Your task to perform on an android device: Empty the shopping cart on amazon. Image 0: 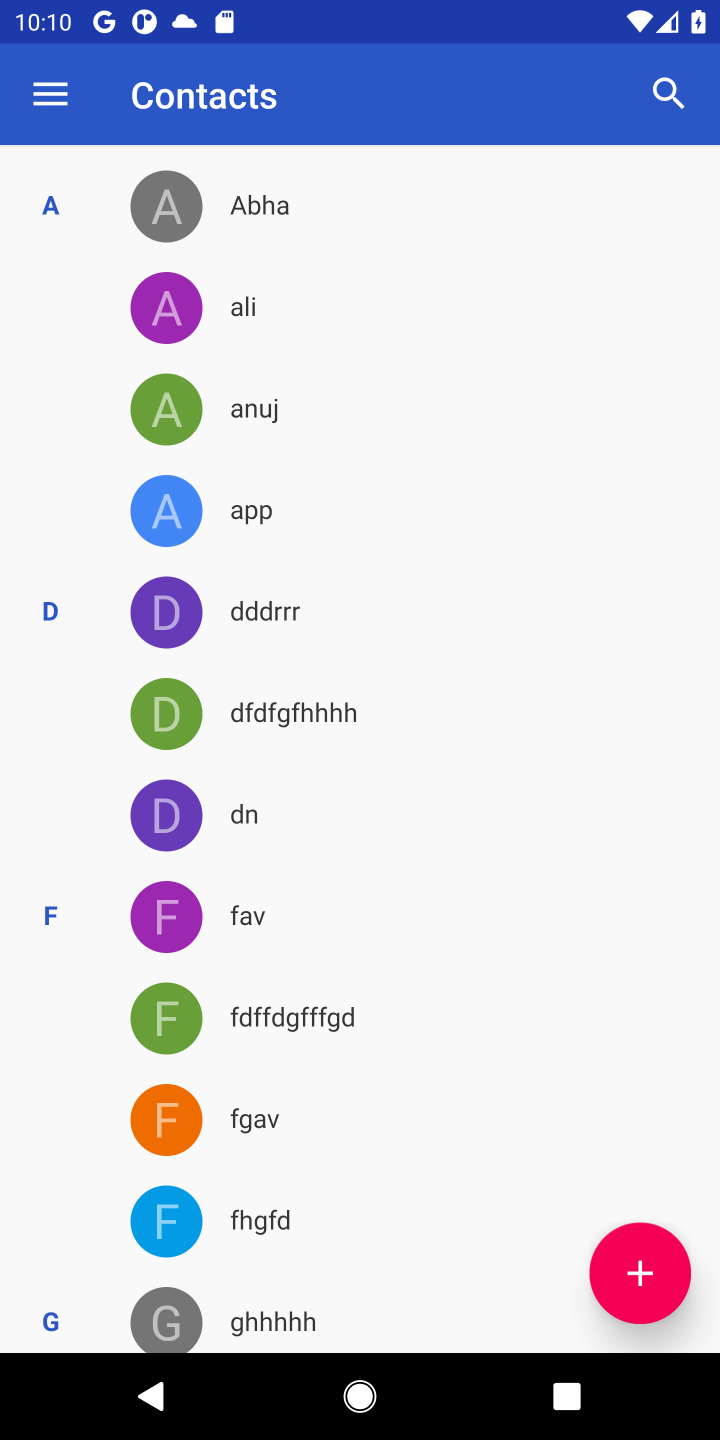
Step 0: press home button
Your task to perform on an android device: Empty the shopping cart on amazon. Image 1: 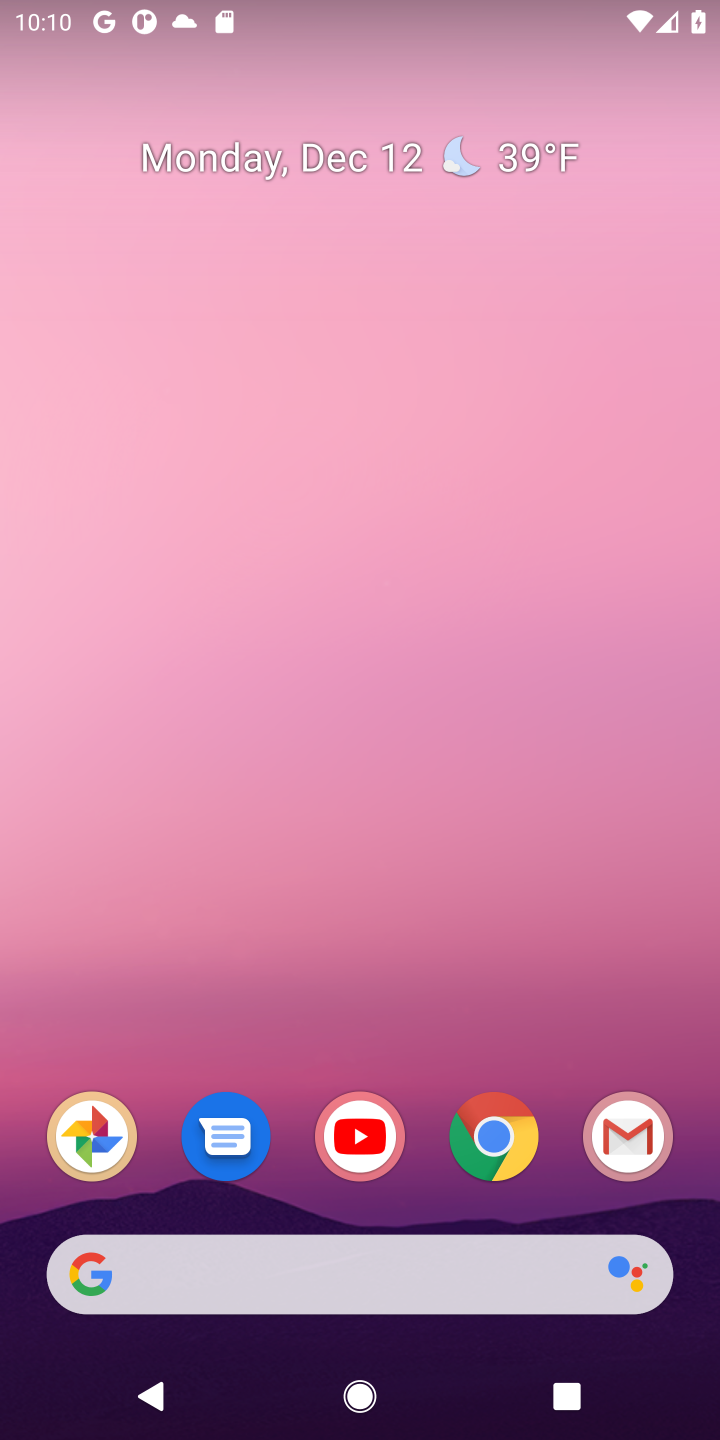
Step 1: click (491, 1150)
Your task to perform on an android device: Empty the shopping cart on amazon. Image 2: 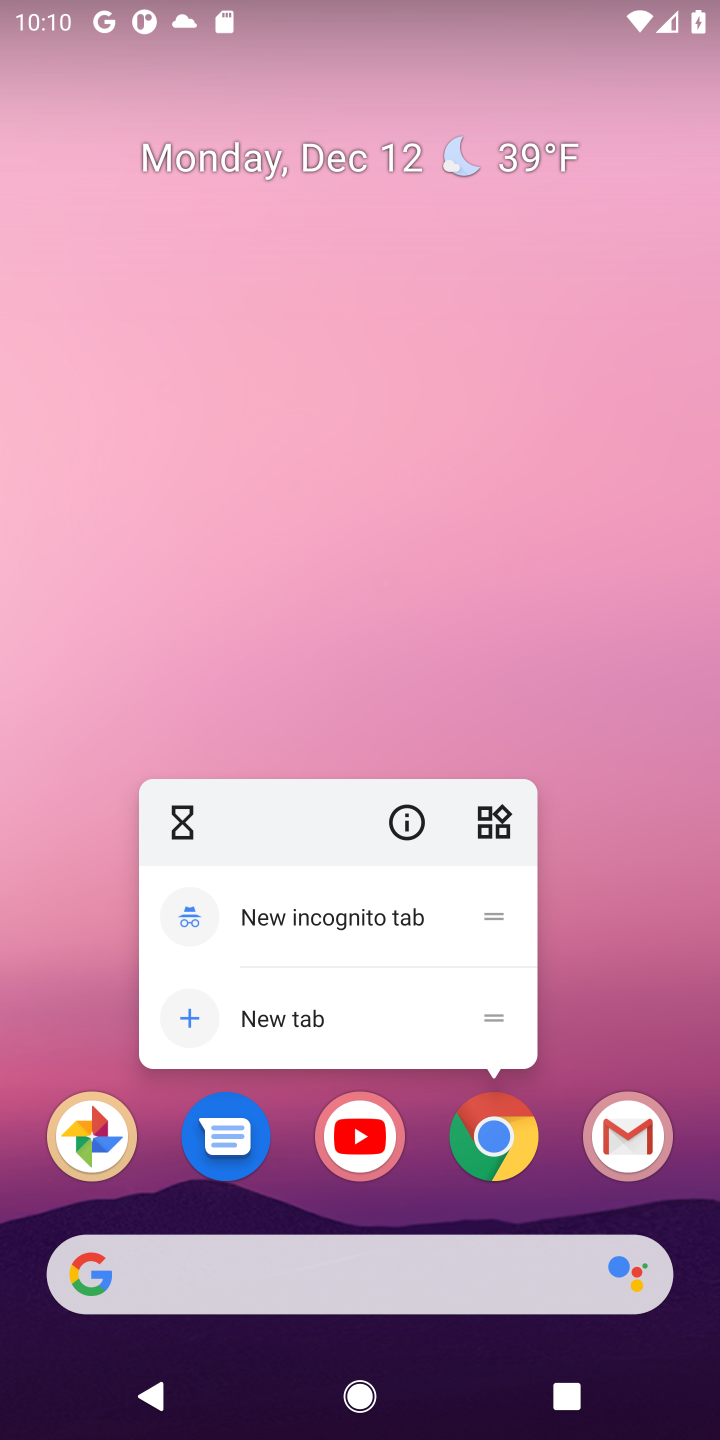
Step 2: click (494, 1141)
Your task to perform on an android device: Empty the shopping cart on amazon. Image 3: 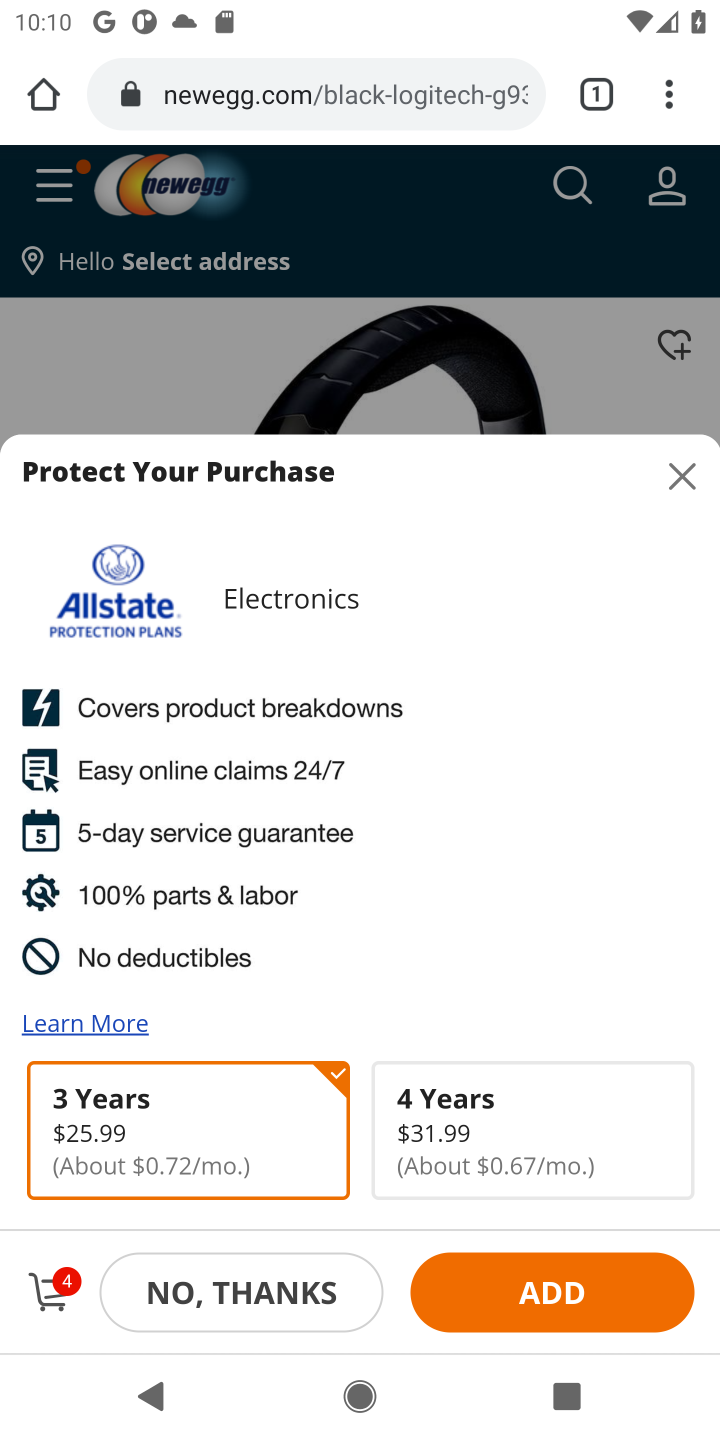
Step 3: click (293, 97)
Your task to perform on an android device: Empty the shopping cart on amazon. Image 4: 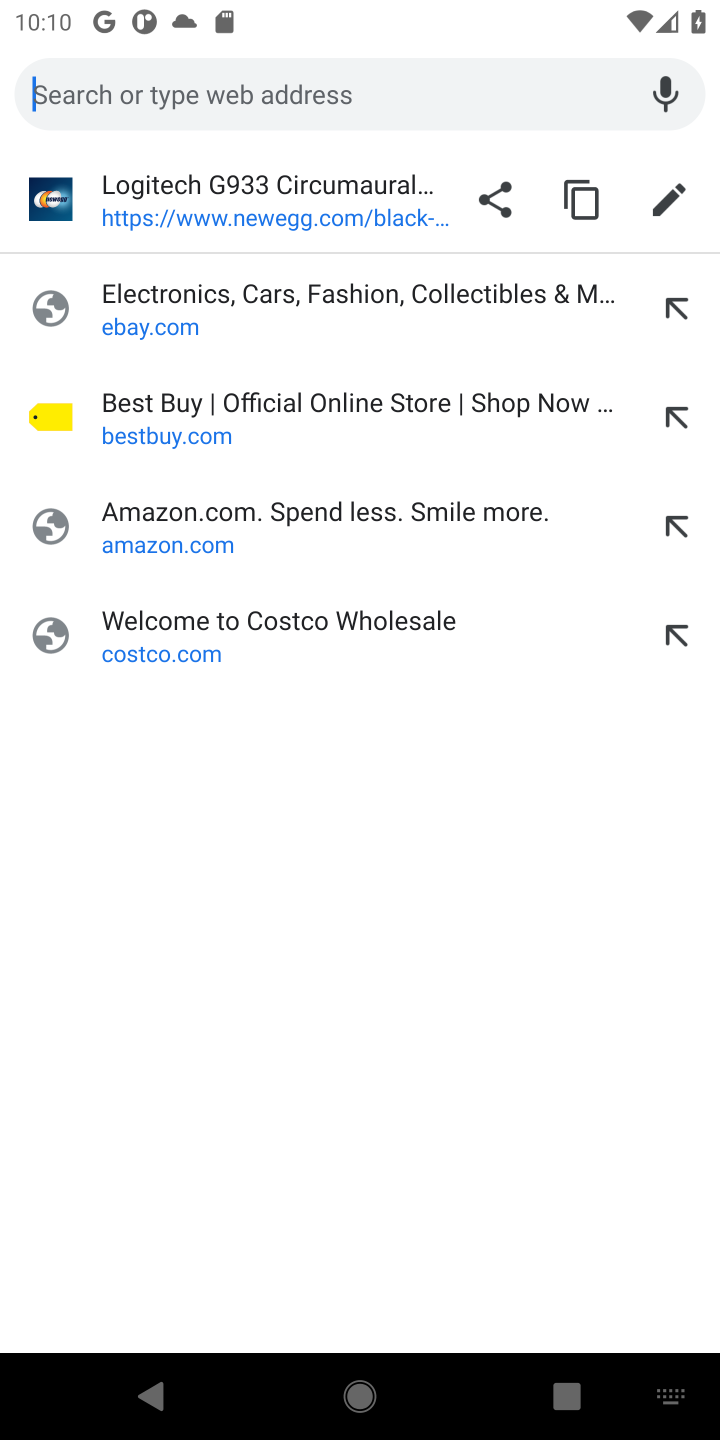
Step 4: click (135, 518)
Your task to perform on an android device: Empty the shopping cart on amazon. Image 5: 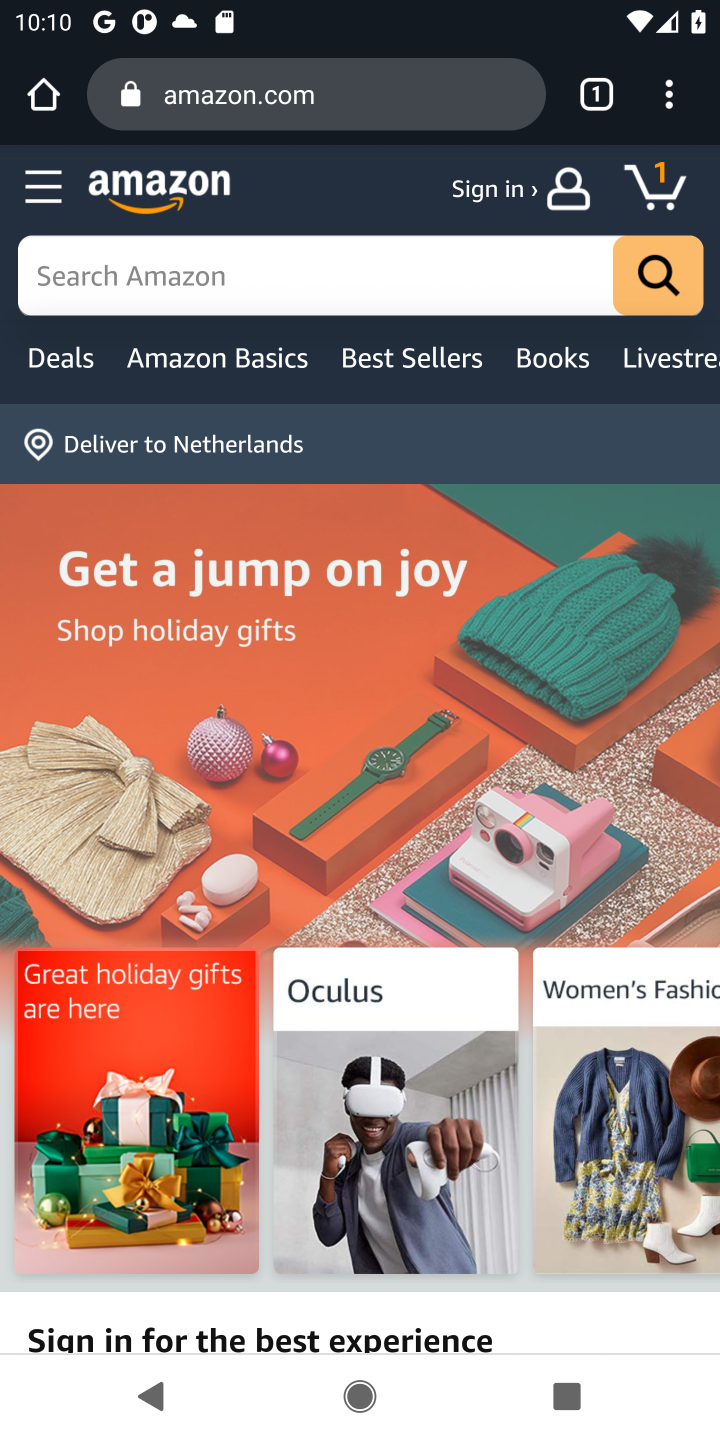
Step 5: click (657, 189)
Your task to perform on an android device: Empty the shopping cart on amazon. Image 6: 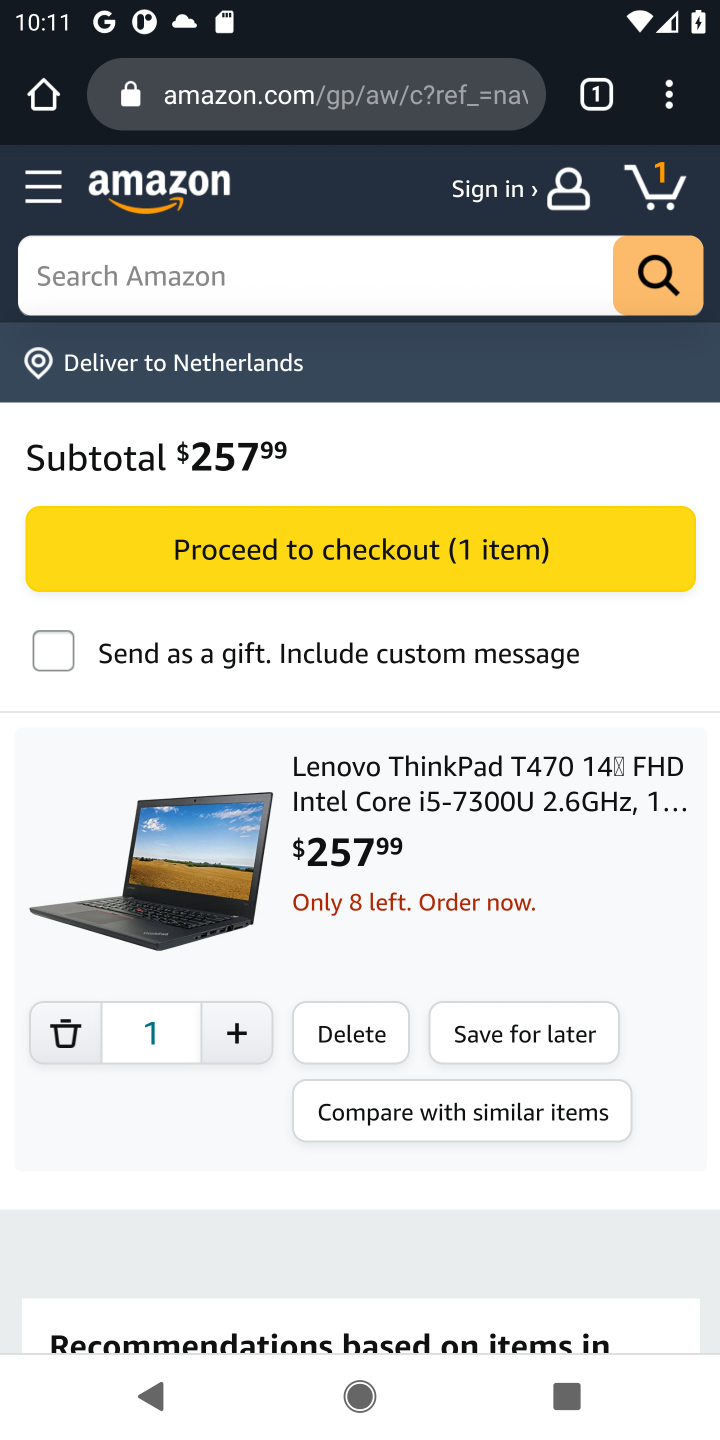
Step 6: click (354, 1032)
Your task to perform on an android device: Empty the shopping cart on amazon. Image 7: 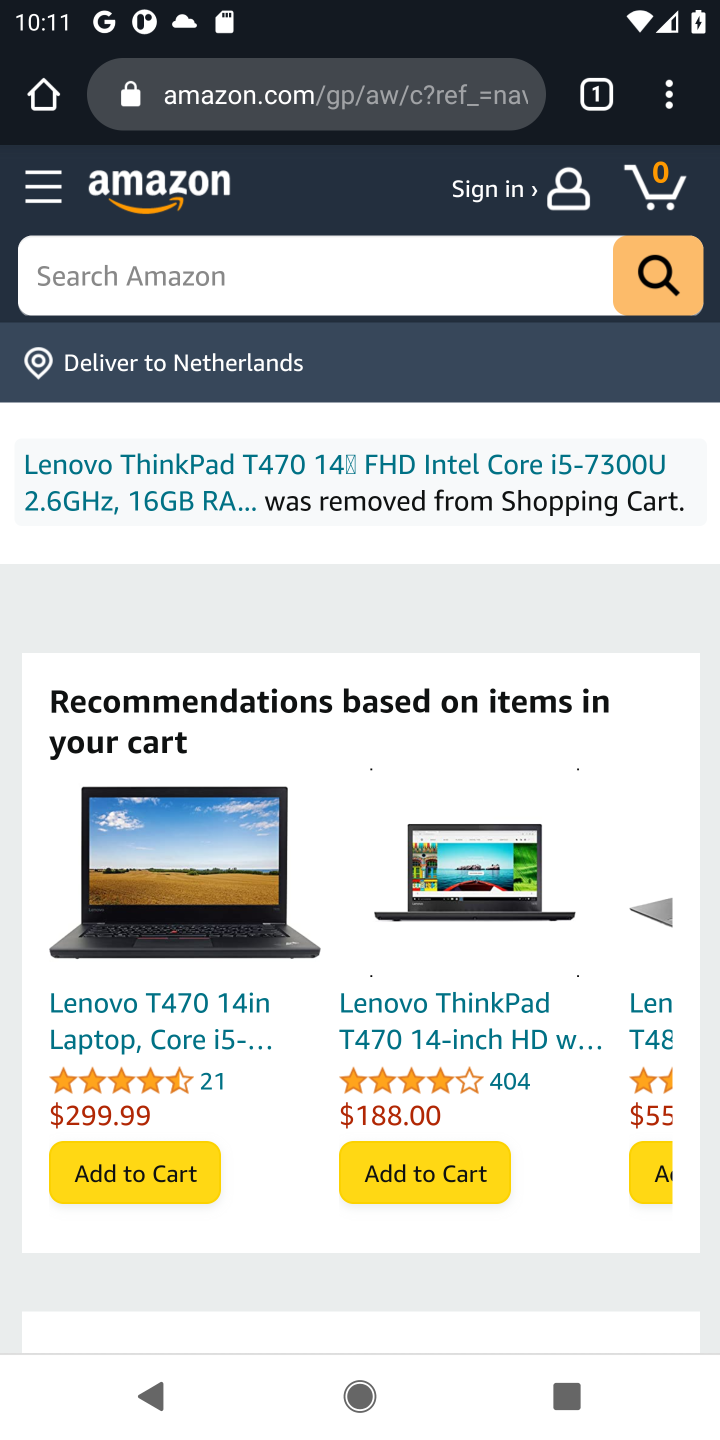
Step 7: task complete